Your task to perform on an android device: Open the web browser Image 0: 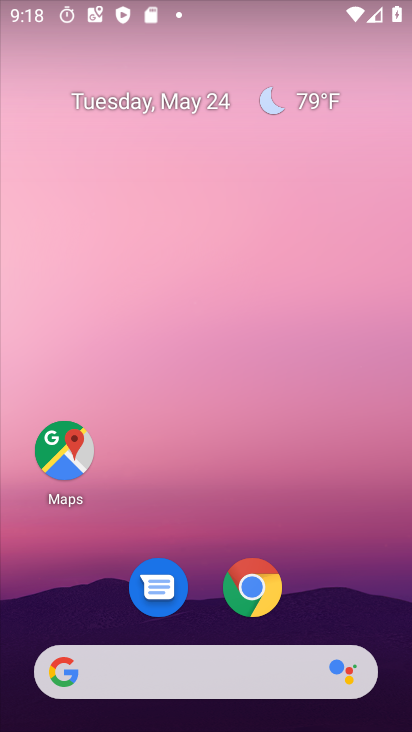
Step 0: click (251, 586)
Your task to perform on an android device: Open the web browser Image 1: 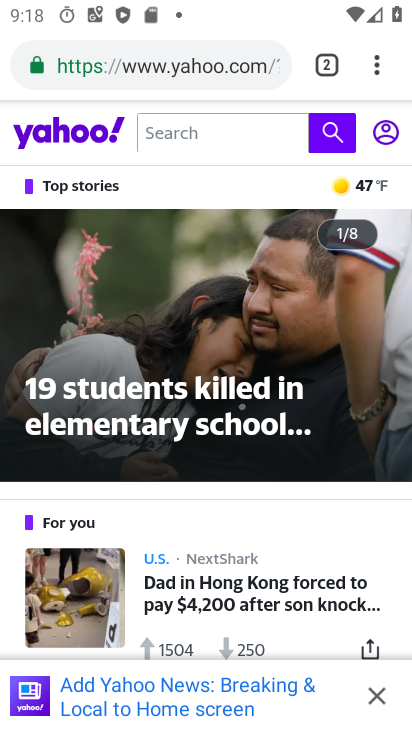
Step 1: task complete